Your task to perform on an android device: toggle improve location accuracy Image 0: 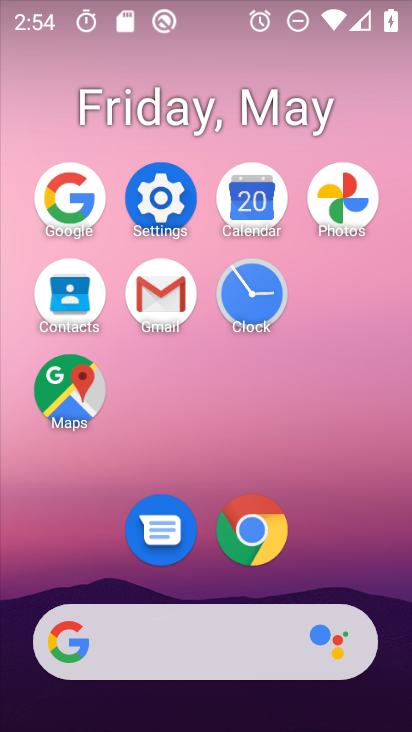
Step 0: click (159, 188)
Your task to perform on an android device: toggle improve location accuracy Image 1: 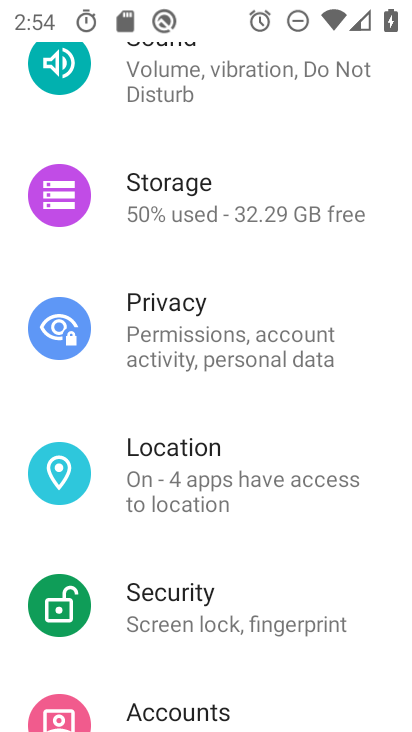
Step 1: click (230, 477)
Your task to perform on an android device: toggle improve location accuracy Image 2: 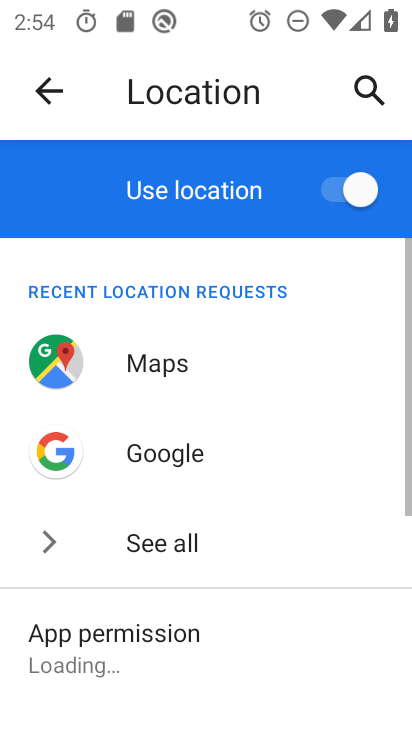
Step 2: drag from (299, 527) to (316, 85)
Your task to perform on an android device: toggle improve location accuracy Image 3: 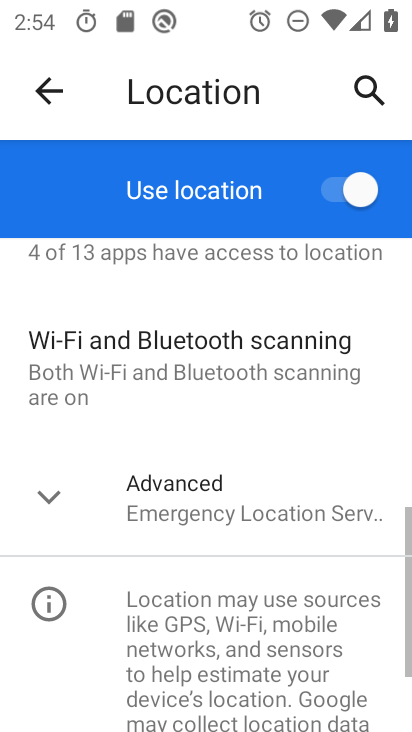
Step 3: click (253, 506)
Your task to perform on an android device: toggle improve location accuracy Image 4: 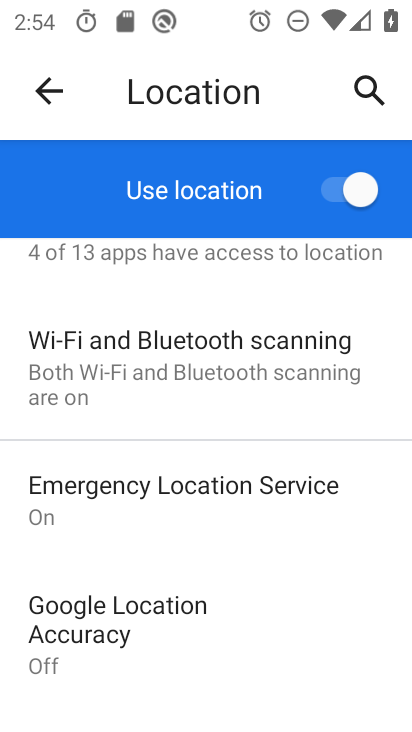
Step 4: drag from (269, 594) to (247, 159)
Your task to perform on an android device: toggle improve location accuracy Image 5: 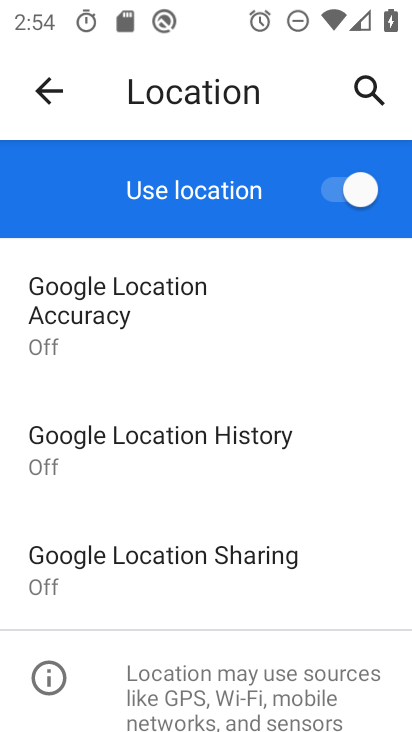
Step 5: click (197, 312)
Your task to perform on an android device: toggle improve location accuracy Image 6: 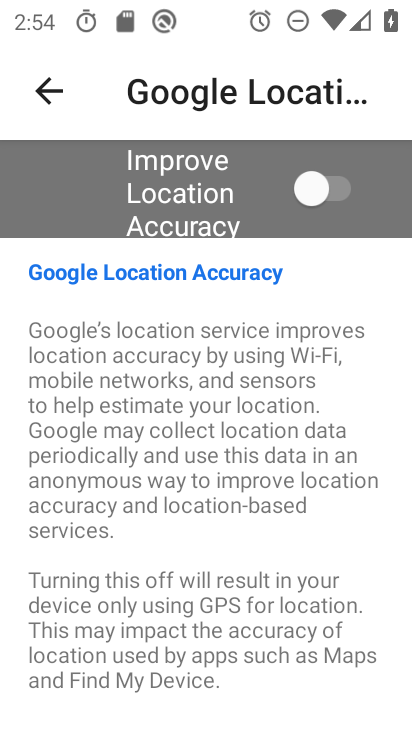
Step 6: click (327, 178)
Your task to perform on an android device: toggle improve location accuracy Image 7: 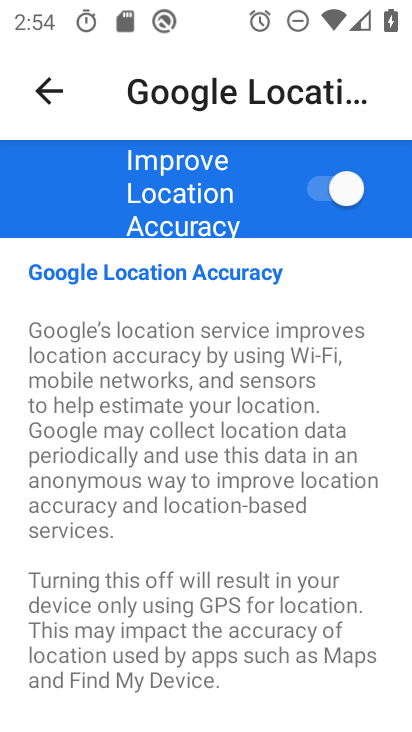
Step 7: task complete